Your task to perform on an android device: turn on data saver in the chrome app Image 0: 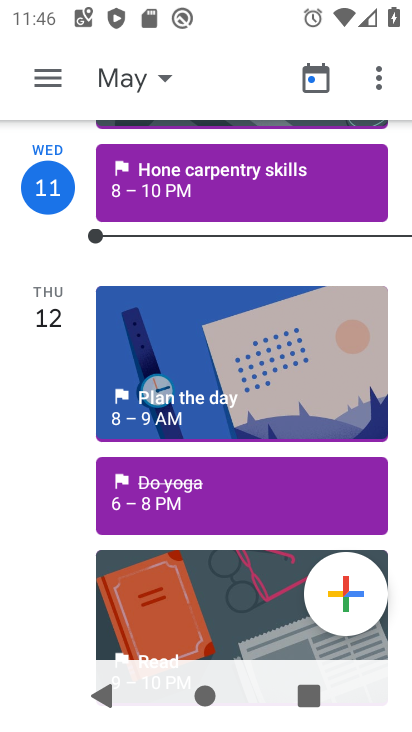
Step 0: press home button
Your task to perform on an android device: turn on data saver in the chrome app Image 1: 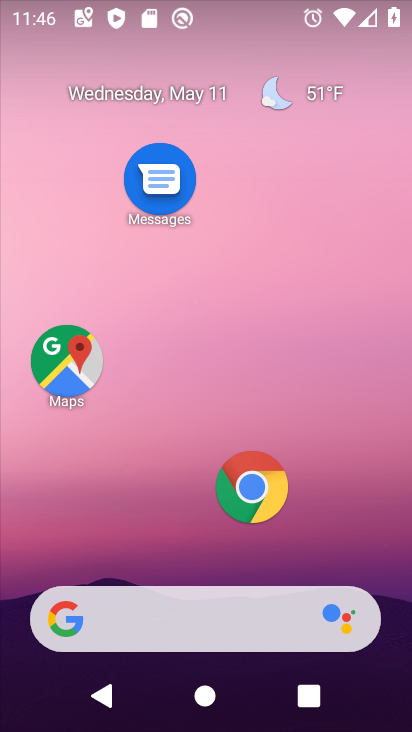
Step 1: click (247, 493)
Your task to perform on an android device: turn on data saver in the chrome app Image 2: 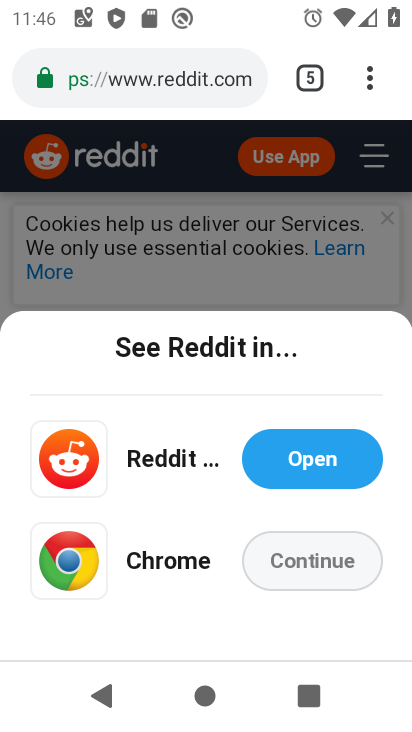
Step 2: click (296, 558)
Your task to perform on an android device: turn on data saver in the chrome app Image 3: 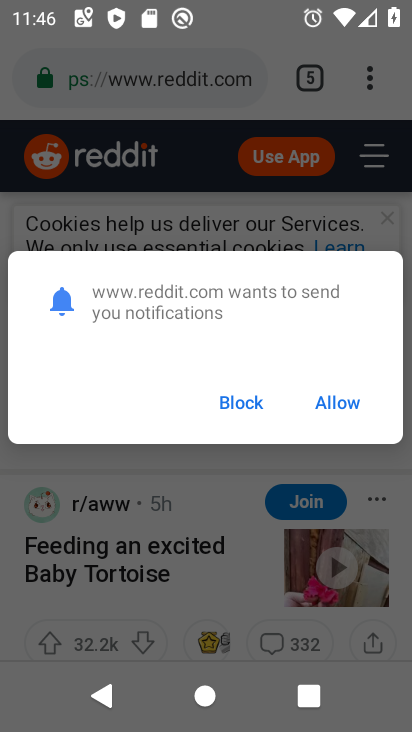
Step 3: click (362, 79)
Your task to perform on an android device: turn on data saver in the chrome app Image 4: 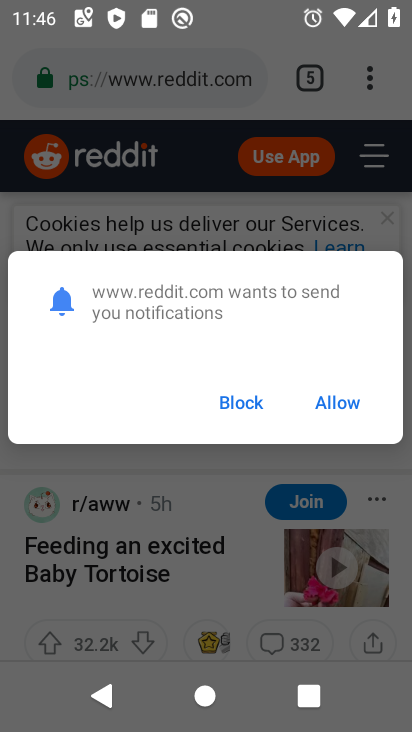
Step 4: click (321, 401)
Your task to perform on an android device: turn on data saver in the chrome app Image 5: 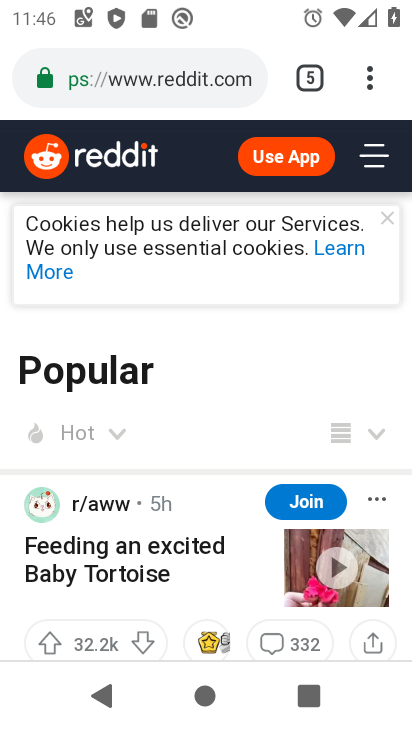
Step 5: drag from (370, 76) to (137, 556)
Your task to perform on an android device: turn on data saver in the chrome app Image 6: 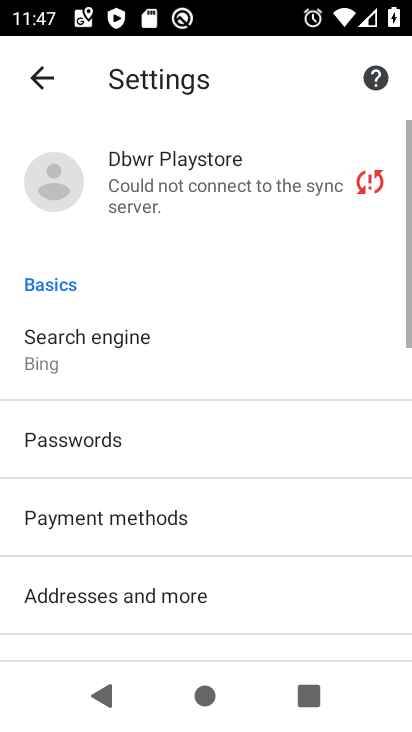
Step 6: drag from (137, 556) to (200, 138)
Your task to perform on an android device: turn on data saver in the chrome app Image 7: 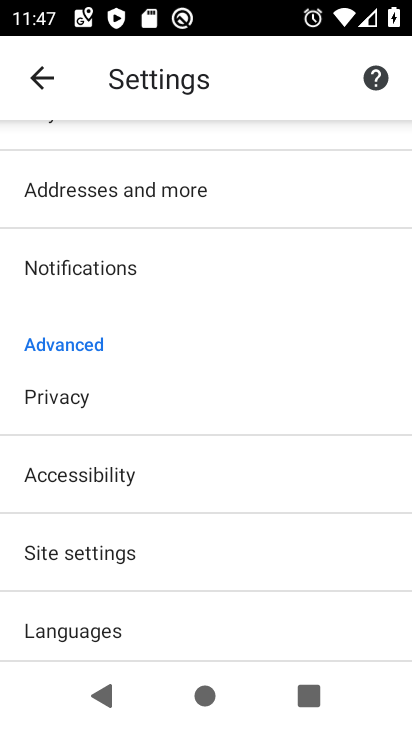
Step 7: drag from (58, 622) to (128, 416)
Your task to perform on an android device: turn on data saver in the chrome app Image 8: 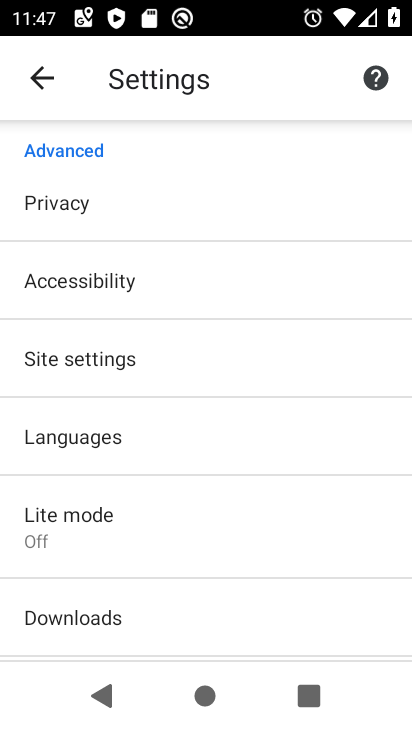
Step 8: click (98, 499)
Your task to perform on an android device: turn on data saver in the chrome app Image 9: 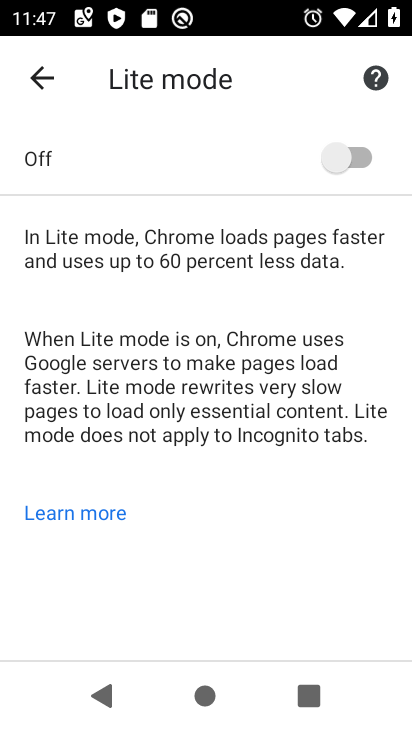
Step 9: click (358, 160)
Your task to perform on an android device: turn on data saver in the chrome app Image 10: 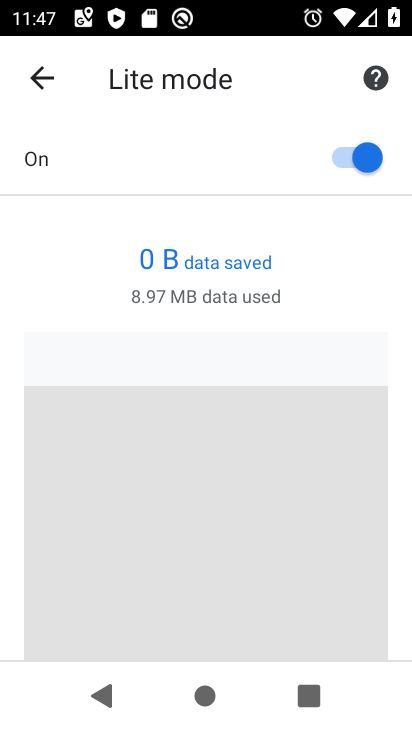
Step 10: task complete